Your task to perform on an android device: What is the news today? Image 0: 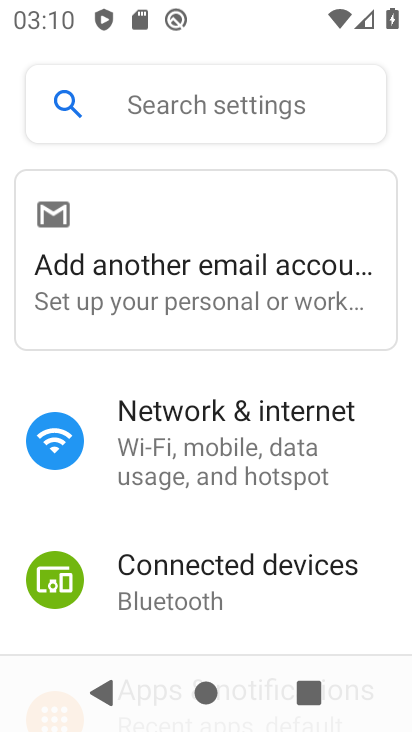
Step 0: press home button
Your task to perform on an android device: What is the news today? Image 1: 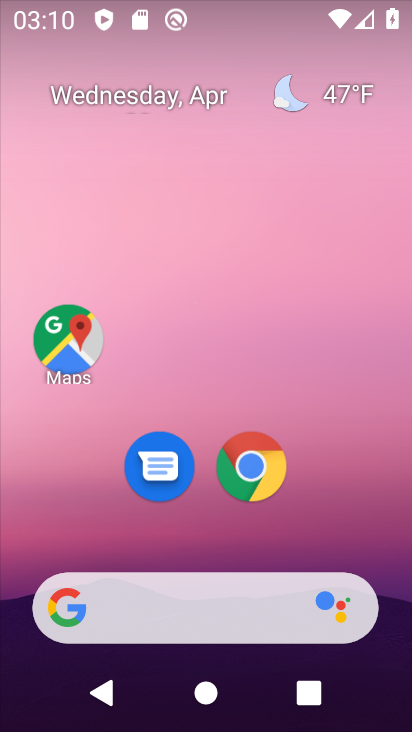
Step 1: click (266, 464)
Your task to perform on an android device: What is the news today? Image 2: 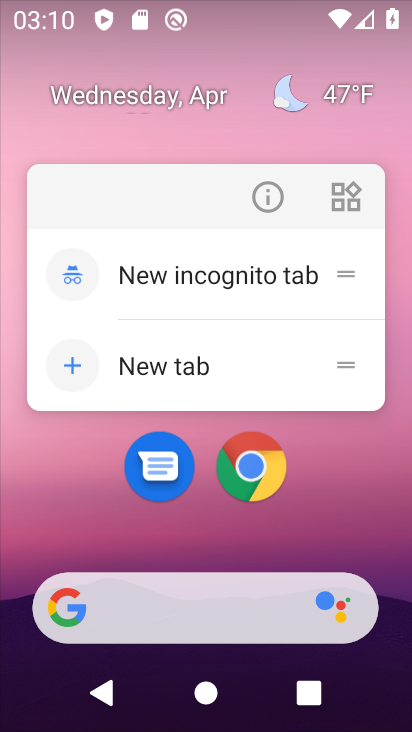
Step 2: click (263, 460)
Your task to perform on an android device: What is the news today? Image 3: 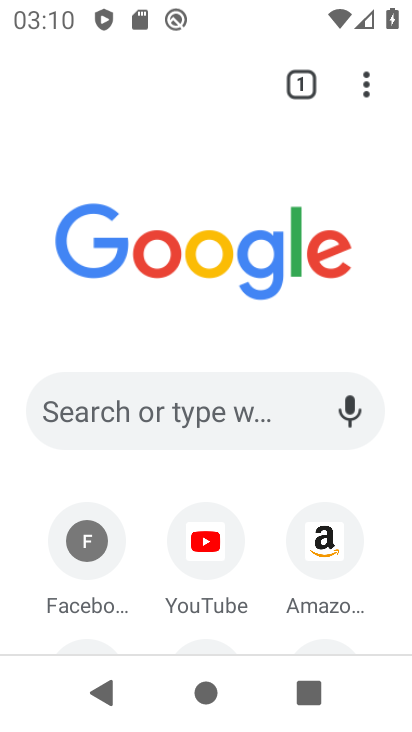
Step 3: click (151, 437)
Your task to perform on an android device: What is the news today? Image 4: 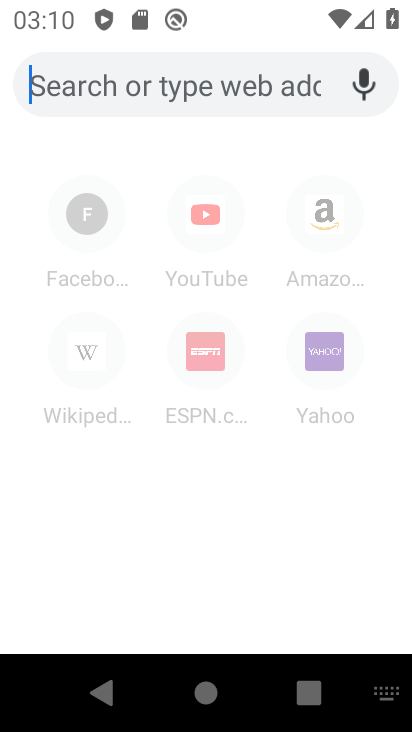
Step 4: type "news today"
Your task to perform on an android device: What is the news today? Image 5: 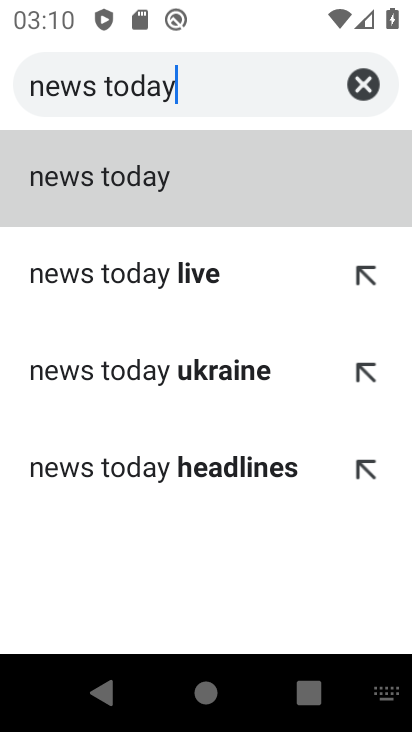
Step 5: click (82, 188)
Your task to perform on an android device: What is the news today? Image 6: 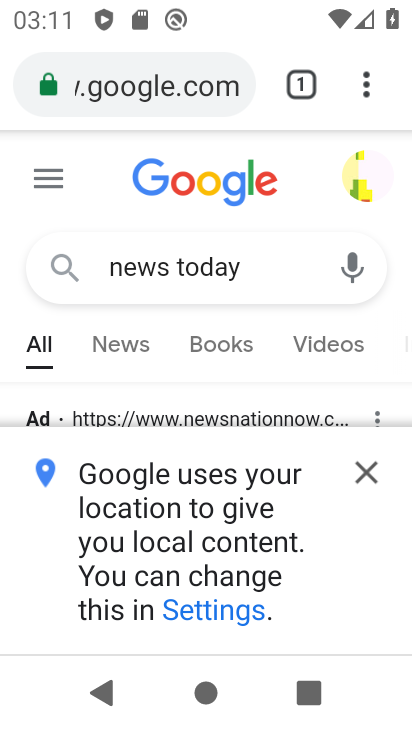
Step 6: click (363, 473)
Your task to perform on an android device: What is the news today? Image 7: 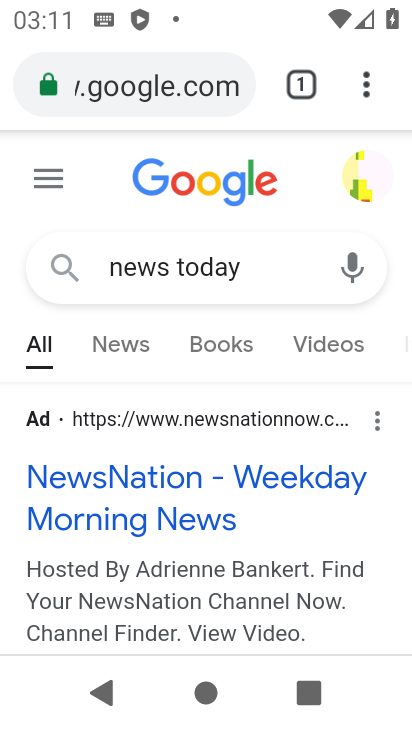
Step 7: drag from (172, 593) to (135, 349)
Your task to perform on an android device: What is the news today? Image 8: 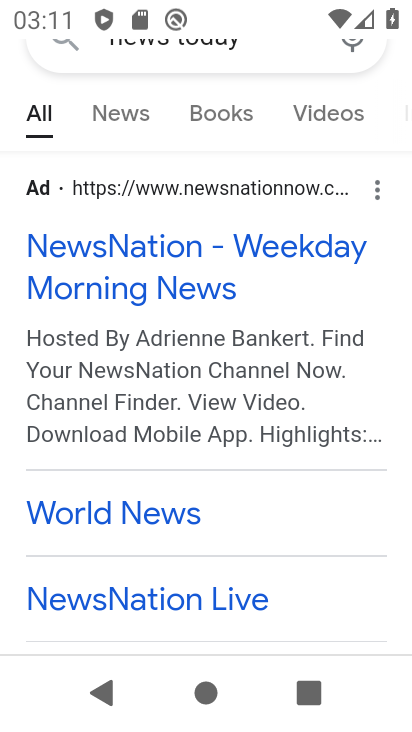
Step 8: click (110, 117)
Your task to perform on an android device: What is the news today? Image 9: 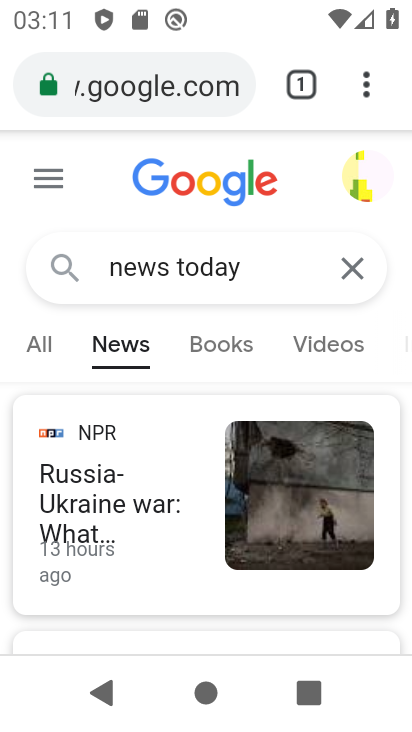
Step 9: task complete